Your task to perform on an android device: check google app version Image 0: 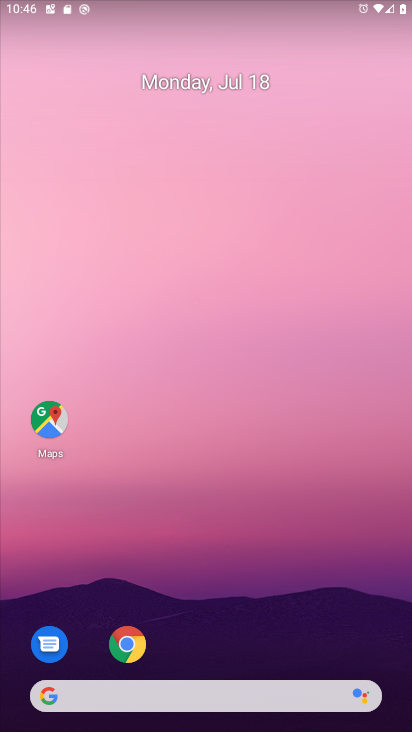
Step 0: click (138, 656)
Your task to perform on an android device: check google app version Image 1: 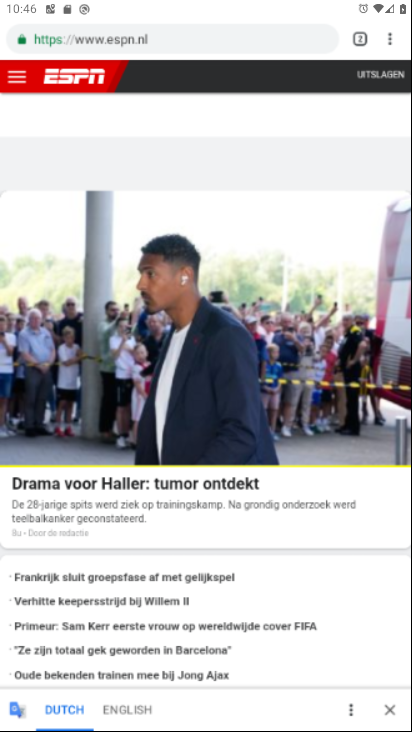
Step 1: task complete